Your task to perform on an android device: Go to Maps Image 0: 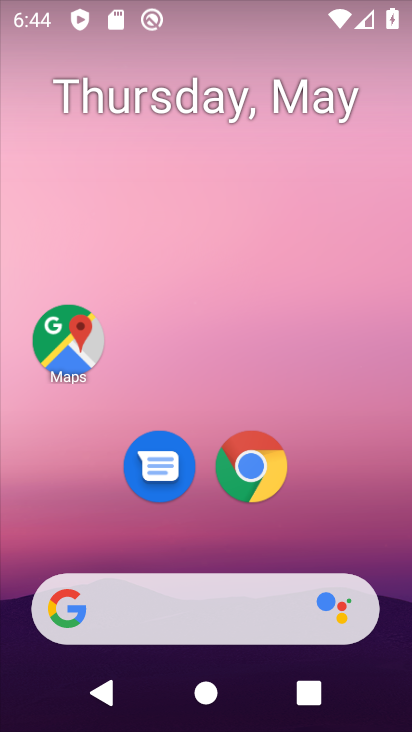
Step 0: click (69, 347)
Your task to perform on an android device: Go to Maps Image 1: 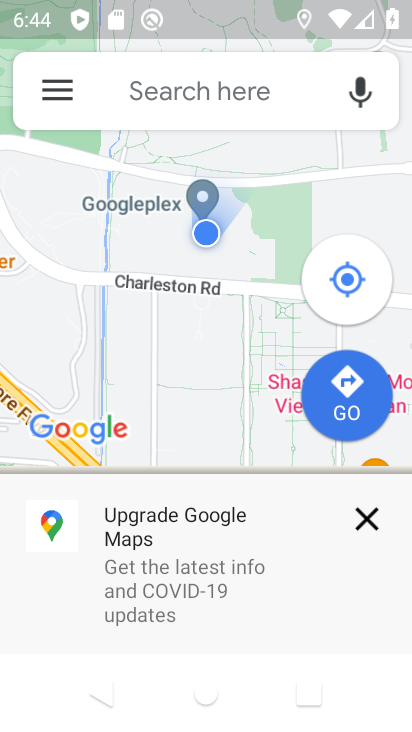
Step 1: click (369, 516)
Your task to perform on an android device: Go to Maps Image 2: 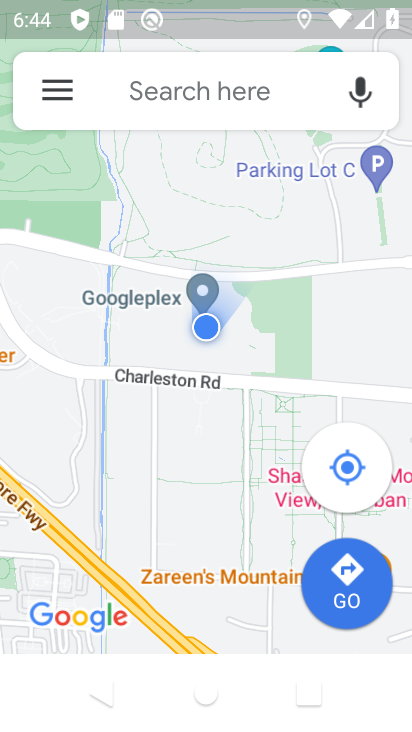
Step 2: task complete